Your task to perform on an android device: set an alarm Image 0: 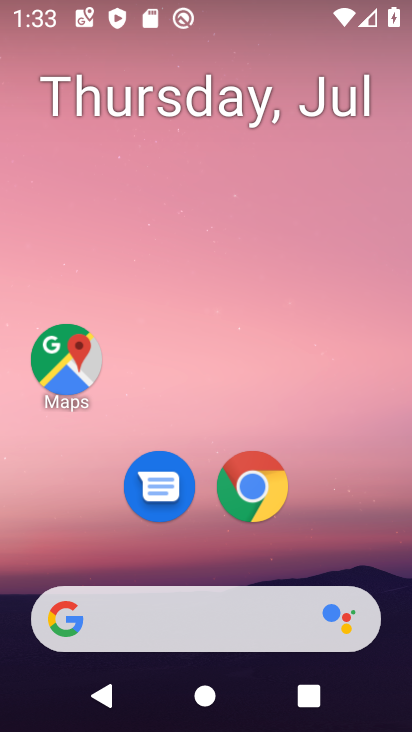
Step 0: drag from (134, 556) to (213, 1)
Your task to perform on an android device: set an alarm Image 1: 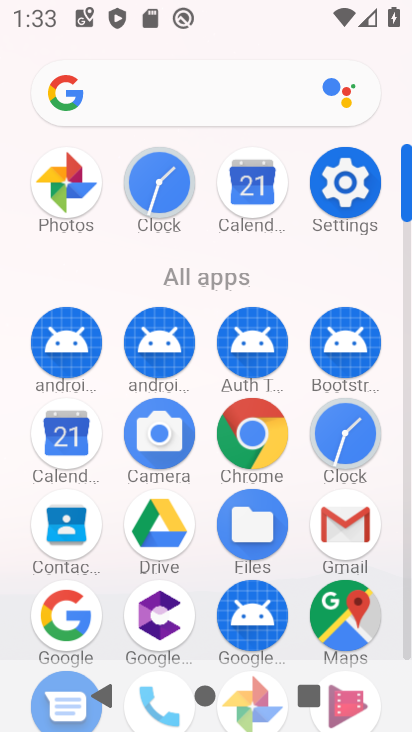
Step 1: click (153, 181)
Your task to perform on an android device: set an alarm Image 2: 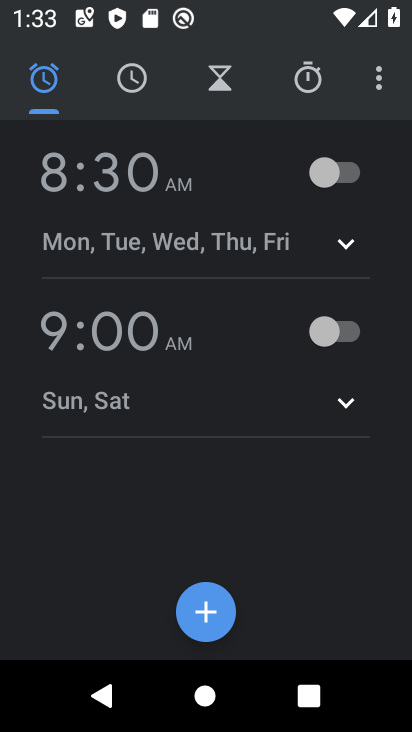
Step 2: click (329, 170)
Your task to perform on an android device: set an alarm Image 3: 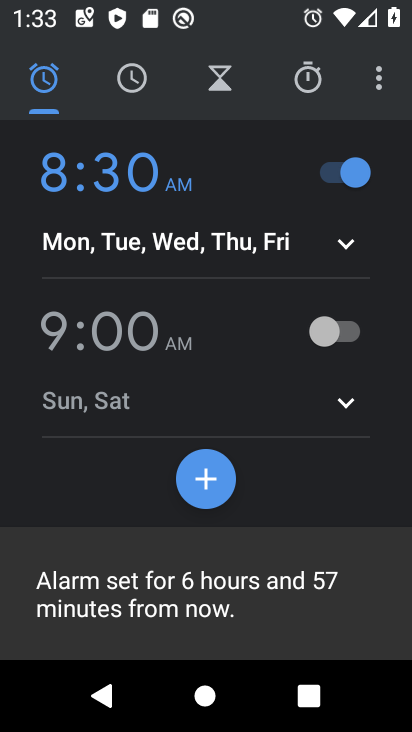
Step 3: task complete